Your task to perform on an android device: Open the map Image 0: 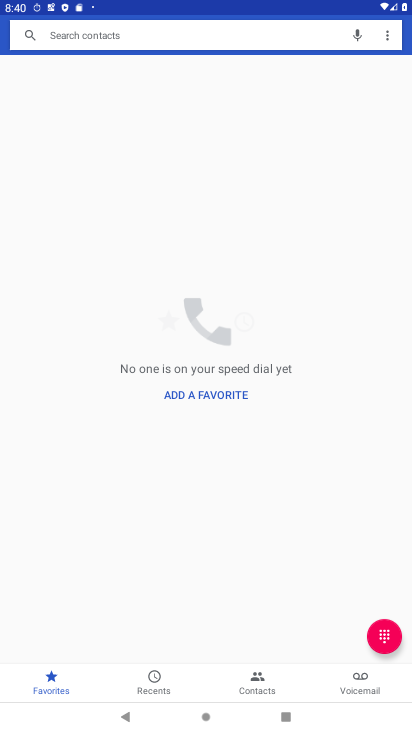
Step 0: press home button
Your task to perform on an android device: Open the map Image 1: 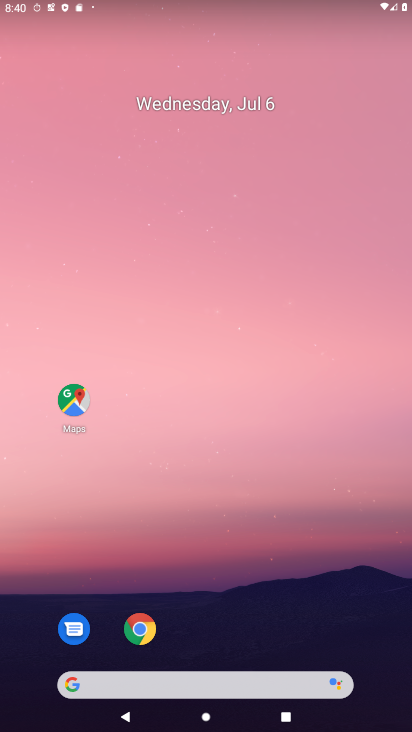
Step 1: drag from (250, 417) to (244, 62)
Your task to perform on an android device: Open the map Image 2: 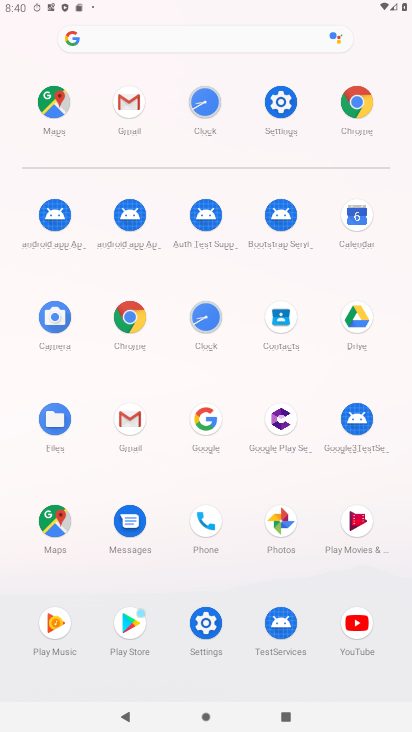
Step 2: click (54, 519)
Your task to perform on an android device: Open the map Image 3: 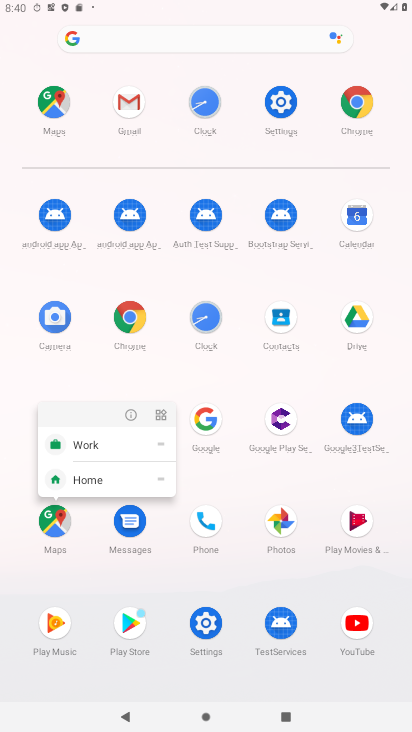
Step 3: click (44, 514)
Your task to perform on an android device: Open the map Image 4: 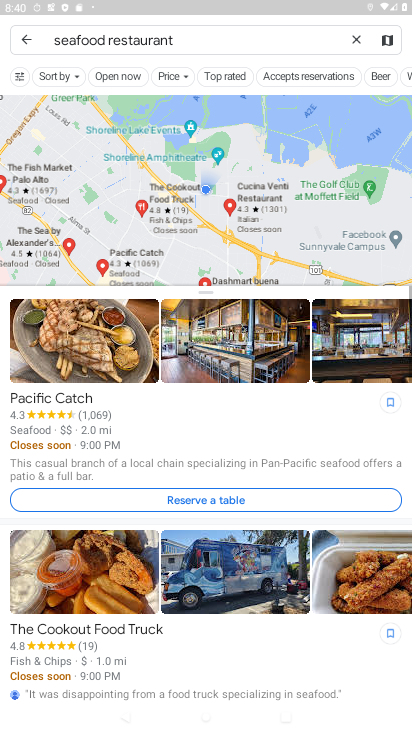
Step 4: task complete